Your task to perform on an android device: toggle sleep mode Image 0: 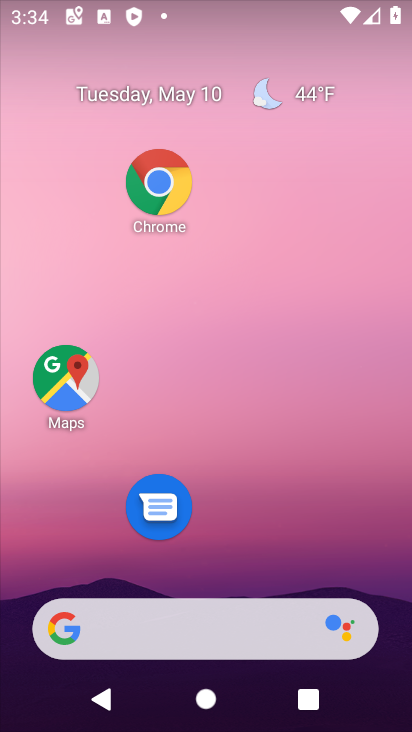
Step 0: drag from (334, 576) to (232, 127)
Your task to perform on an android device: toggle sleep mode Image 1: 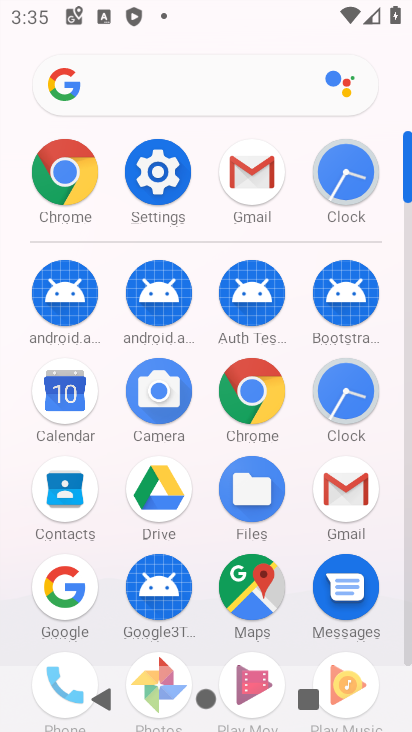
Step 1: click (161, 198)
Your task to perform on an android device: toggle sleep mode Image 2: 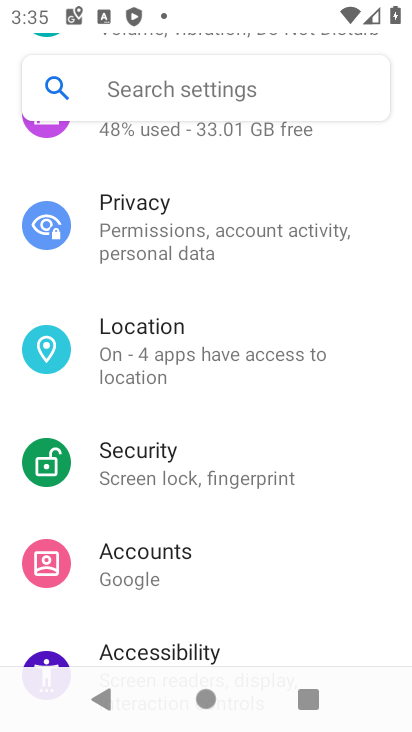
Step 2: drag from (161, 278) to (234, 620)
Your task to perform on an android device: toggle sleep mode Image 3: 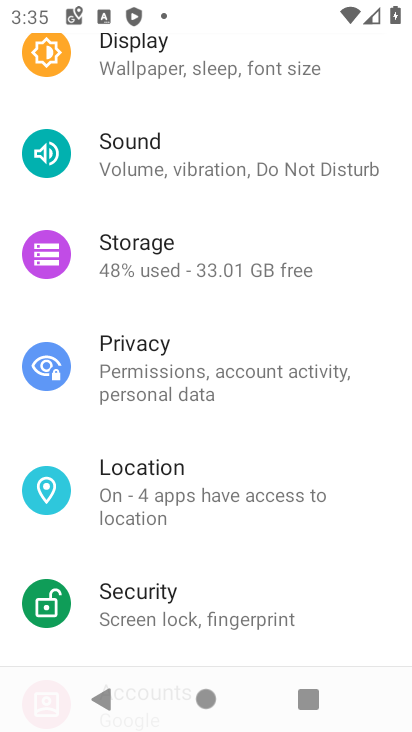
Step 3: drag from (208, 248) to (187, 606)
Your task to perform on an android device: toggle sleep mode Image 4: 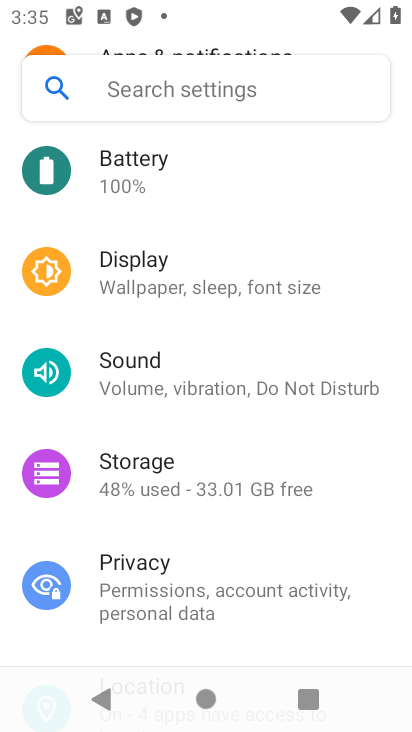
Step 4: click (171, 267)
Your task to perform on an android device: toggle sleep mode Image 5: 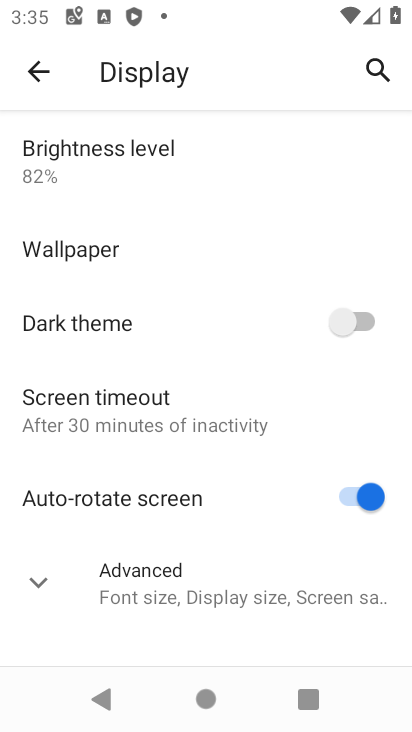
Step 5: click (205, 406)
Your task to perform on an android device: toggle sleep mode Image 6: 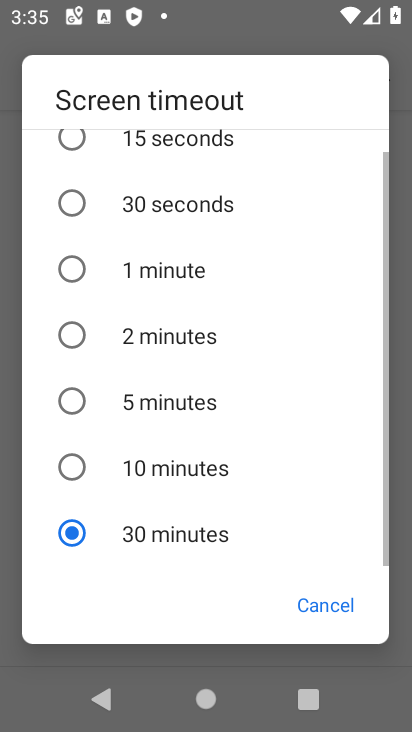
Step 6: click (218, 305)
Your task to perform on an android device: toggle sleep mode Image 7: 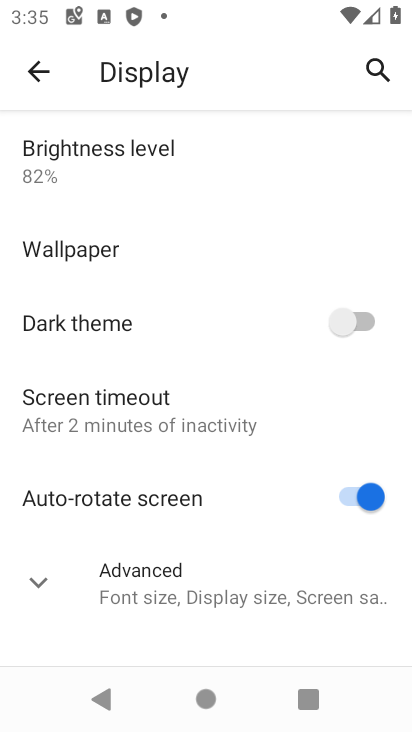
Step 7: task complete